Your task to perform on an android device: toggle show notifications on the lock screen Image 0: 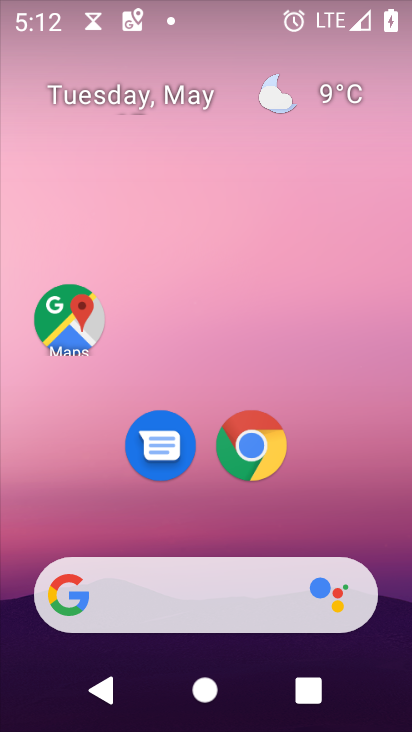
Step 0: drag from (229, 599) to (214, 0)
Your task to perform on an android device: toggle show notifications on the lock screen Image 1: 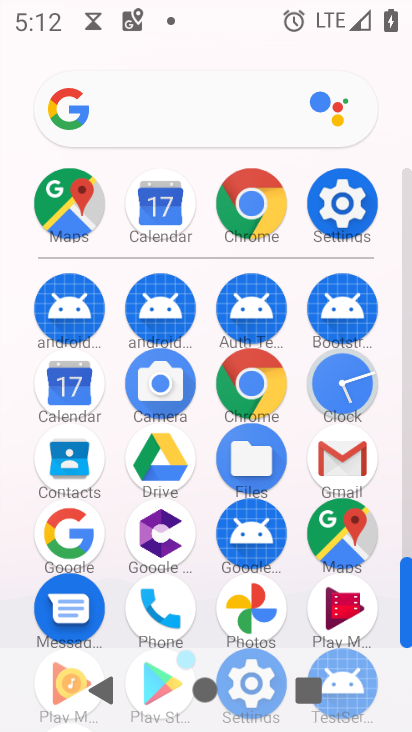
Step 1: click (330, 196)
Your task to perform on an android device: toggle show notifications on the lock screen Image 2: 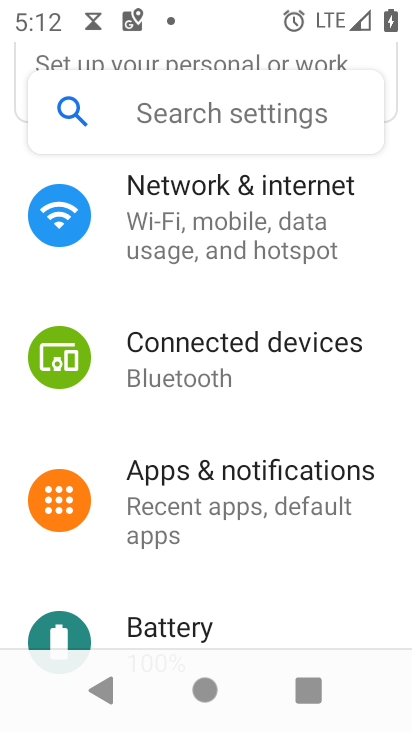
Step 2: click (289, 498)
Your task to perform on an android device: toggle show notifications on the lock screen Image 3: 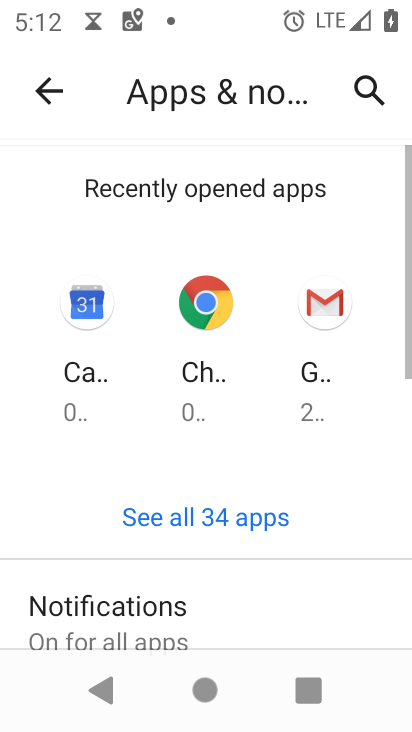
Step 3: drag from (268, 598) to (309, 152)
Your task to perform on an android device: toggle show notifications on the lock screen Image 4: 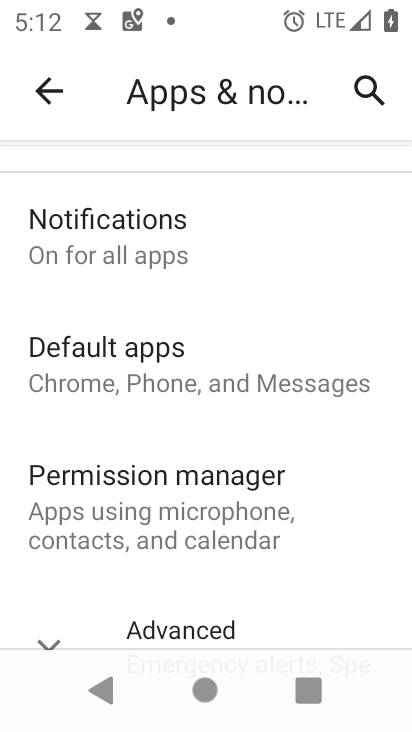
Step 4: click (165, 248)
Your task to perform on an android device: toggle show notifications on the lock screen Image 5: 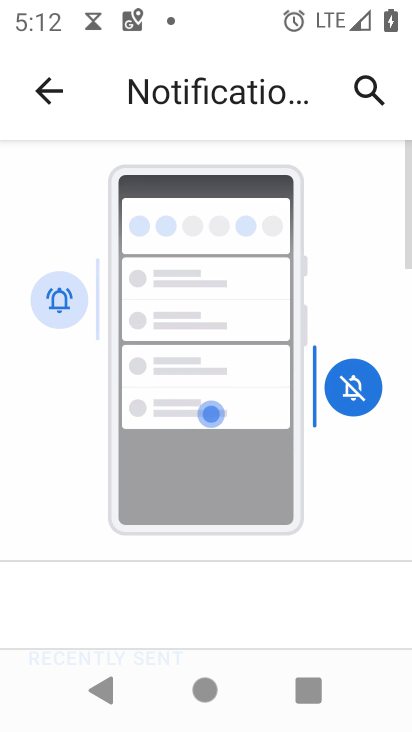
Step 5: drag from (307, 614) to (348, 215)
Your task to perform on an android device: toggle show notifications on the lock screen Image 6: 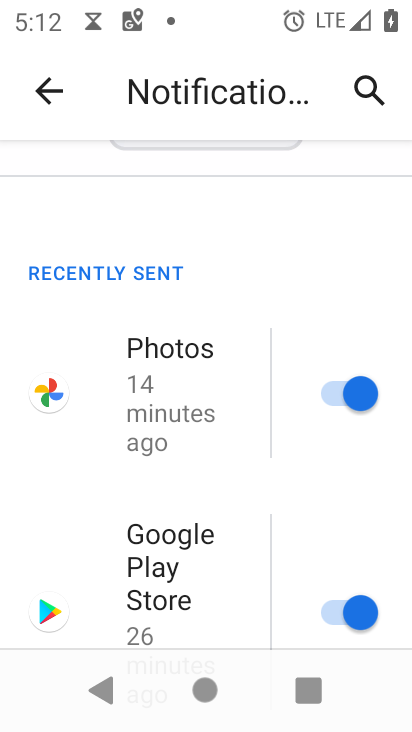
Step 6: drag from (276, 608) to (268, 243)
Your task to perform on an android device: toggle show notifications on the lock screen Image 7: 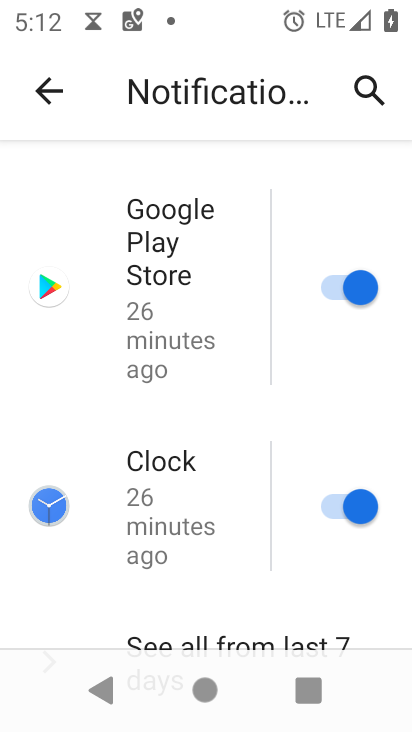
Step 7: drag from (270, 610) to (283, 129)
Your task to perform on an android device: toggle show notifications on the lock screen Image 8: 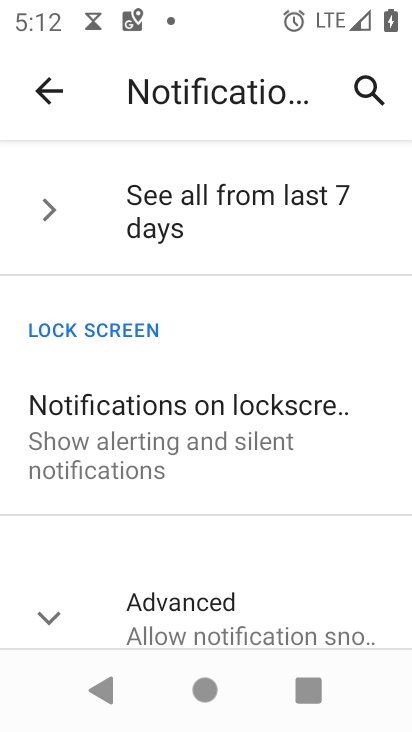
Step 8: click (263, 445)
Your task to perform on an android device: toggle show notifications on the lock screen Image 9: 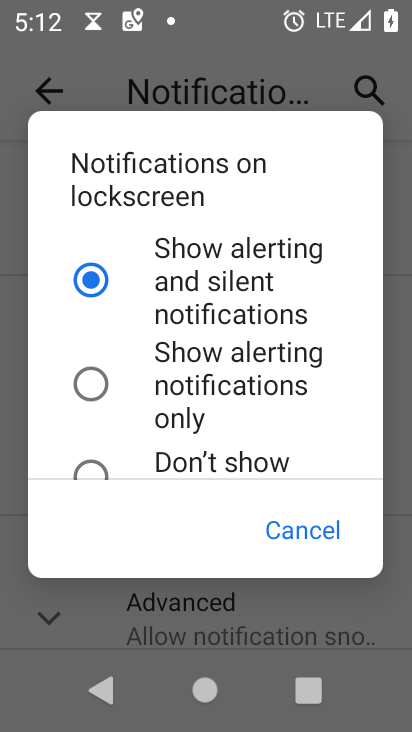
Step 9: click (101, 463)
Your task to perform on an android device: toggle show notifications on the lock screen Image 10: 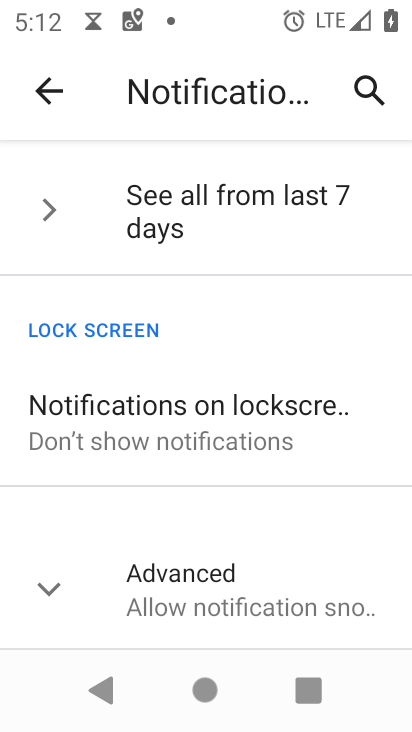
Step 10: task complete